Your task to perform on an android device: What's the weather going to be tomorrow? Image 0: 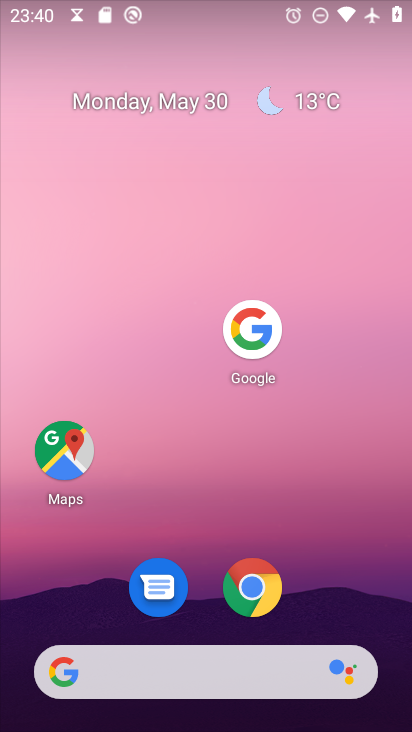
Step 0: press home button
Your task to perform on an android device: What's the weather going to be tomorrow? Image 1: 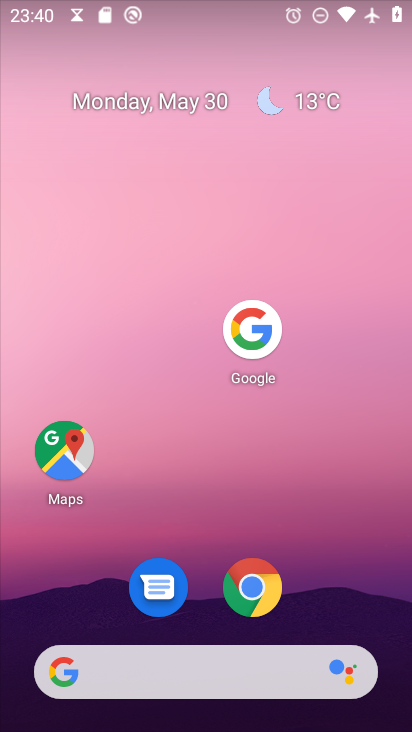
Step 1: click (318, 101)
Your task to perform on an android device: What's the weather going to be tomorrow? Image 2: 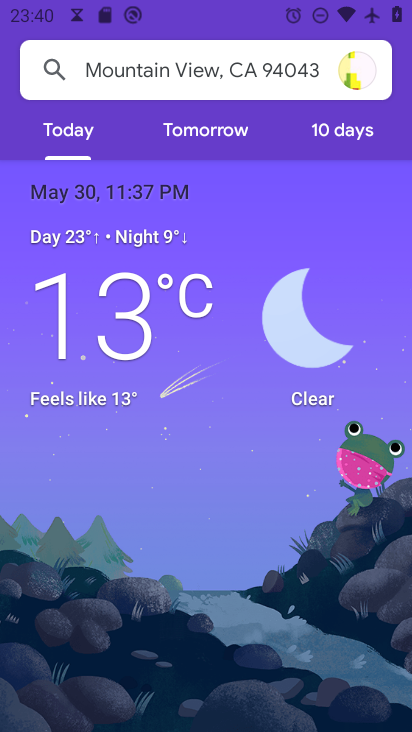
Step 2: click (212, 131)
Your task to perform on an android device: What's the weather going to be tomorrow? Image 3: 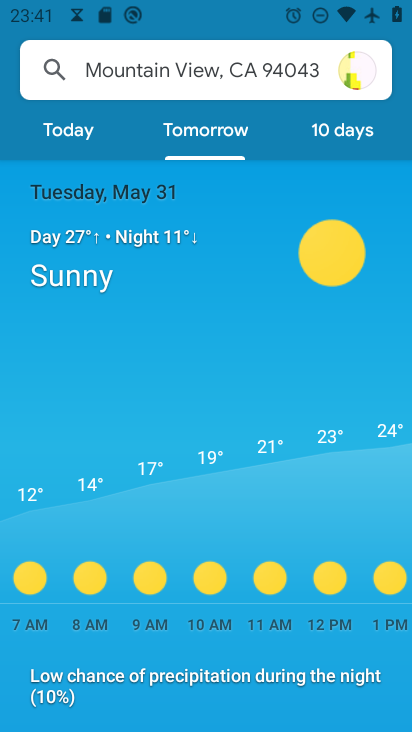
Step 3: task complete